Your task to perform on an android device: Open calendar and show me the second week of next month Image 0: 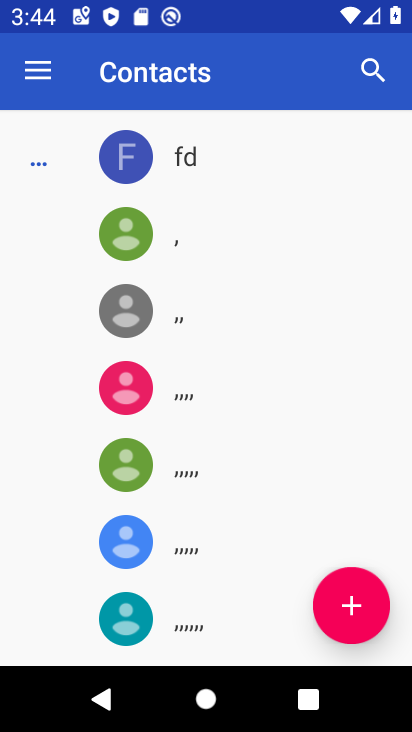
Step 0: press home button
Your task to perform on an android device: Open calendar and show me the second week of next month Image 1: 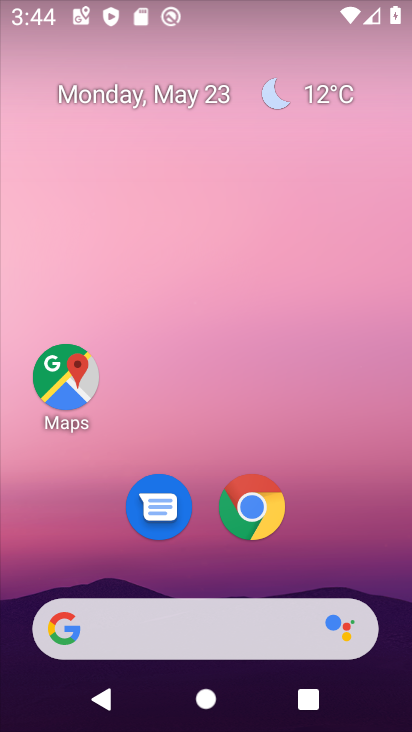
Step 1: click (179, 99)
Your task to perform on an android device: Open calendar and show me the second week of next month Image 2: 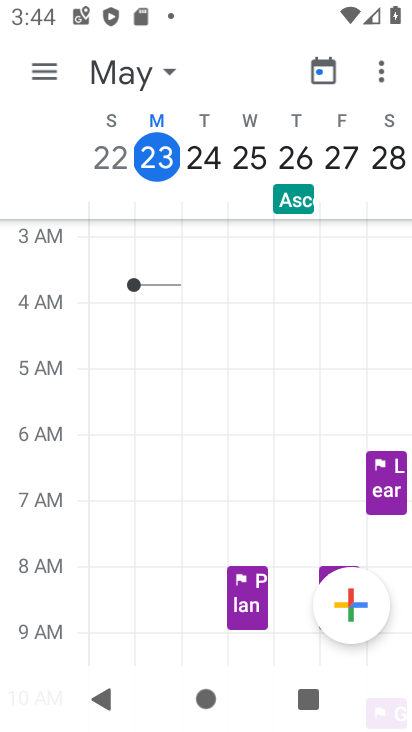
Step 2: click (128, 90)
Your task to perform on an android device: Open calendar and show me the second week of next month Image 3: 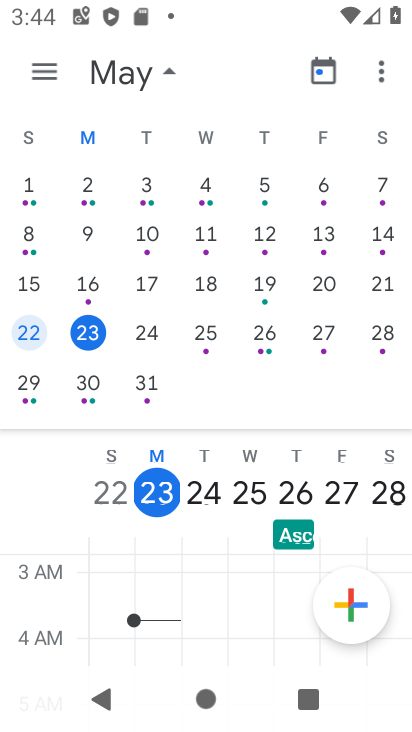
Step 3: drag from (371, 374) to (31, 364)
Your task to perform on an android device: Open calendar and show me the second week of next month Image 4: 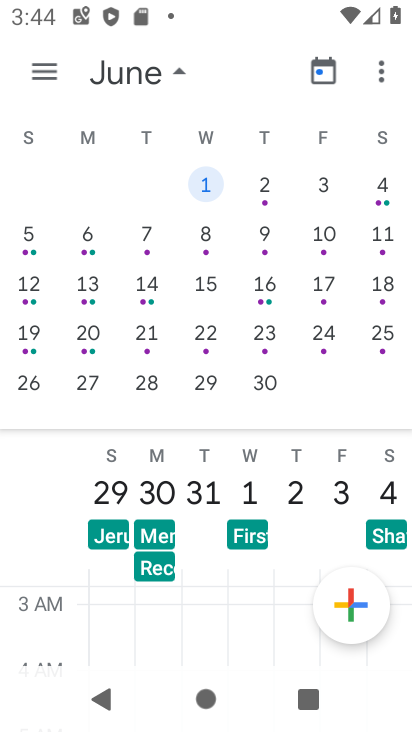
Step 4: click (266, 236)
Your task to perform on an android device: Open calendar and show me the second week of next month Image 5: 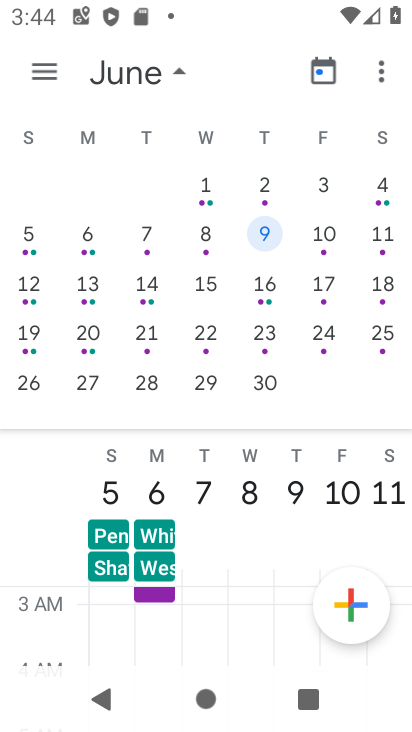
Step 5: task complete